Your task to perform on an android device: open chrome and create a bookmark for the current page Image 0: 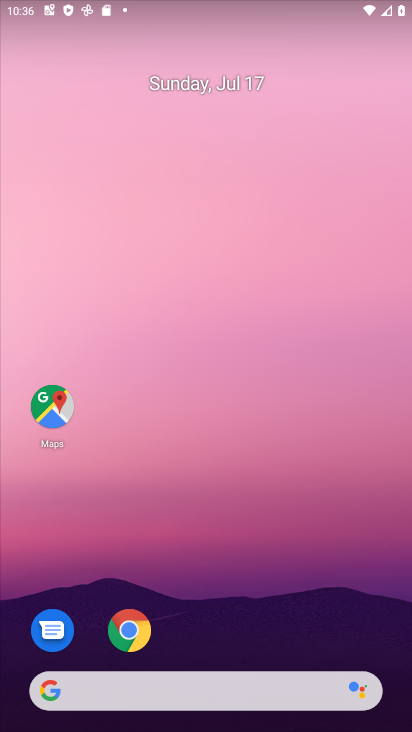
Step 0: click (120, 625)
Your task to perform on an android device: open chrome and create a bookmark for the current page Image 1: 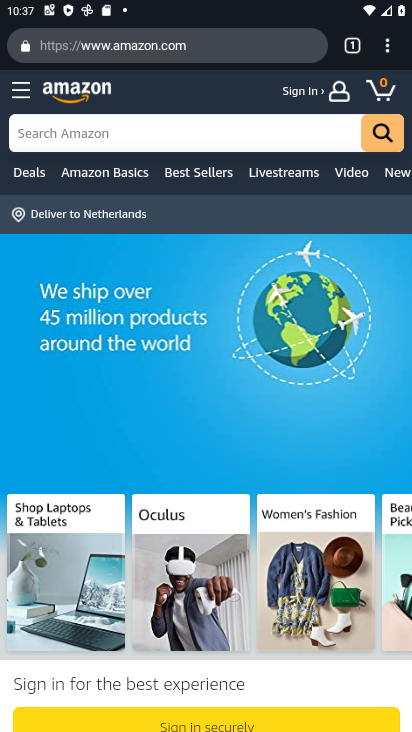
Step 1: click (386, 44)
Your task to perform on an android device: open chrome and create a bookmark for the current page Image 2: 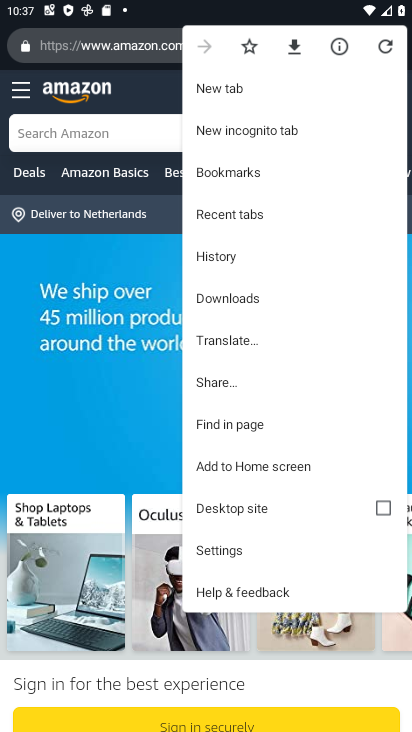
Step 2: click (115, 213)
Your task to perform on an android device: open chrome and create a bookmark for the current page Image 3: 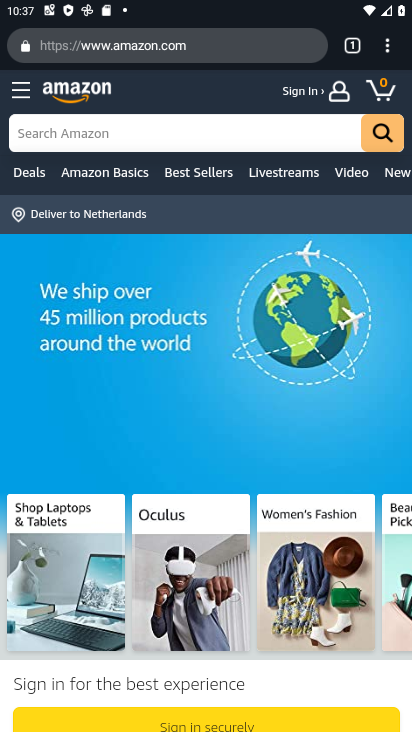
Step 3: click (384, 62)
Your task to perform on an android device: open chrome and create a bookmark for the current page Image 4: 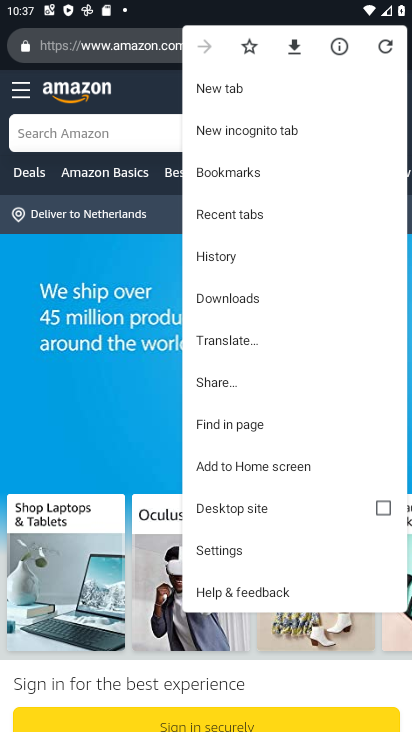
Step 4: click (241, 41)
Your task to perform on an android device: open chrome and create a bookmark for the current page Image 5: 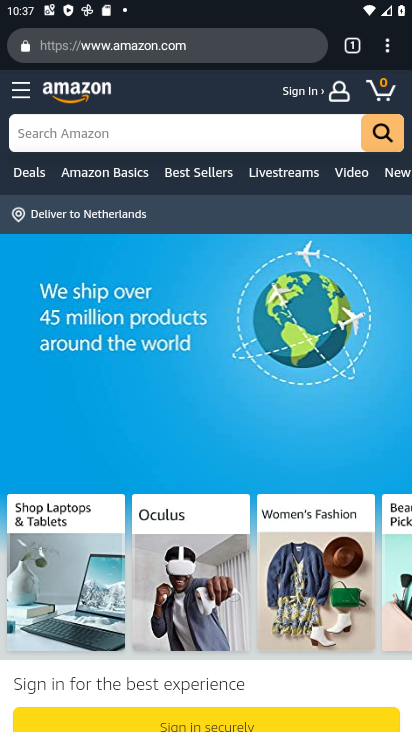
Step 5: task complete